Your task to perform on an android device: toggle translation in the chrome app Image 0: 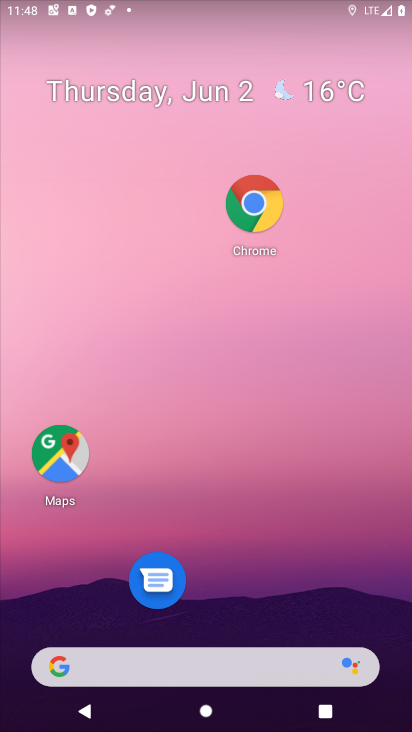
Step 0: drag from (252, 577) to (292, 235)
Your task to perform on an android device: toggle translation in the chrome app Image 1: 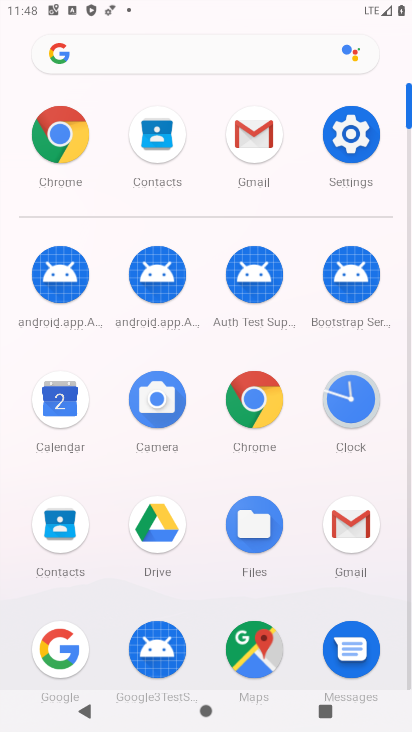
Step 1: click (54, 149)
Your task to perform on an android device: toggle translation in the chrome app Image 2: 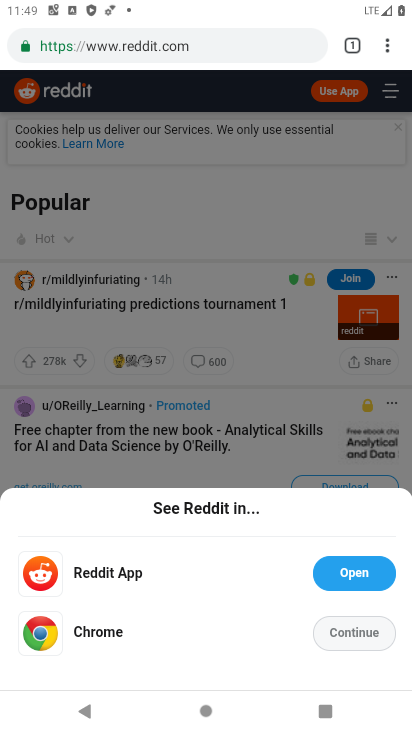
Step 2: click (321, 261)
Your task to perform on an android device: toggle translation in the chrome app Image 3: 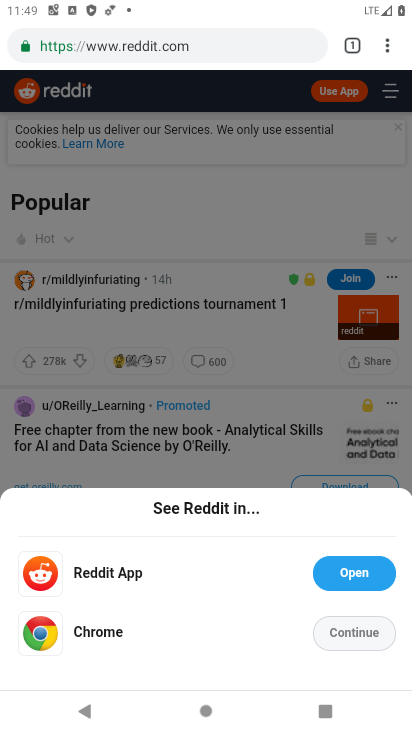
Step 3: click (387, 47)
Your task to perform on an android device: toggle translation in the chrome app Image 4: 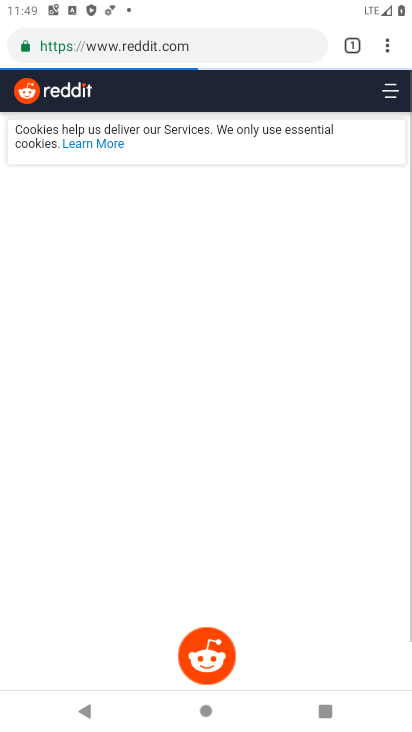
Step 4: click (390, 49)
Your task to perform on an android device: toggle translation in the chrome app Image 5: 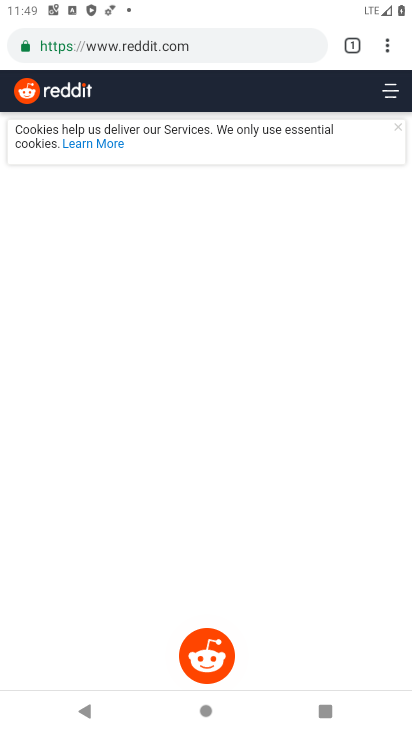
Step 5: click (390, 49)
Your task to perform on an android device: toggle translation in the chrome app Image 6: 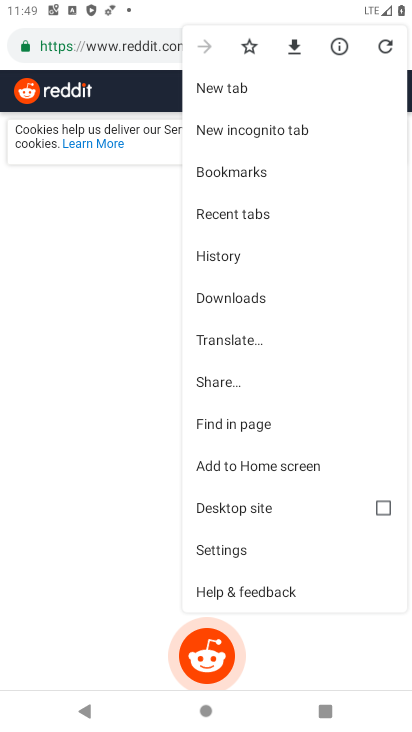
Step 6: click (277, 338)
Your task to perform on an android device: toggle translation in the chrome app Image 7: 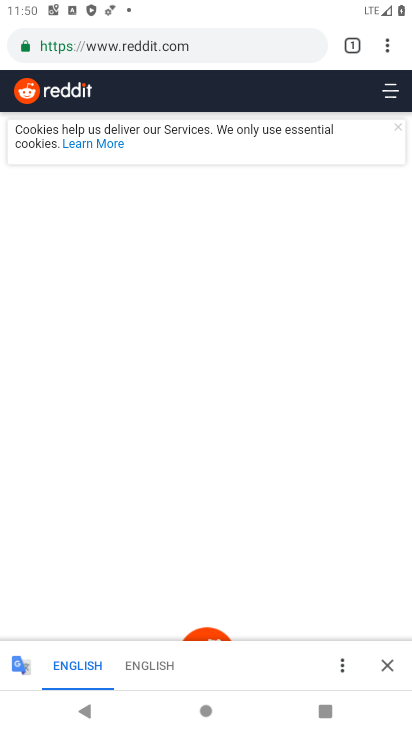
Step 7: click (340, 673)
Your task to perform on an android device: toggle translation in the chrome app Image 8: 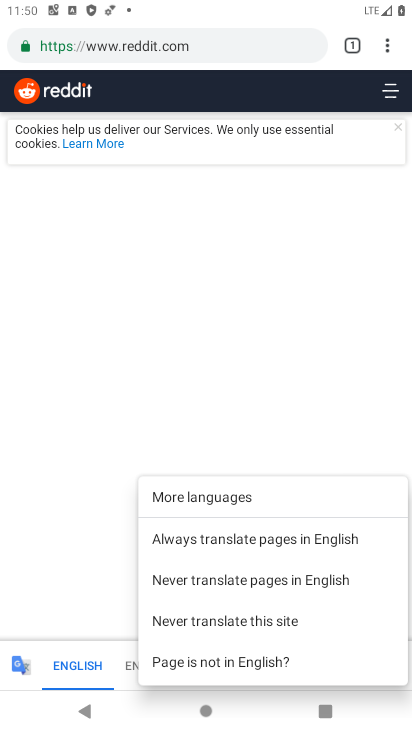
Step 8: click (302, 534)
Your task to perform on an android device: toggle translation in the chrome app Image 9: 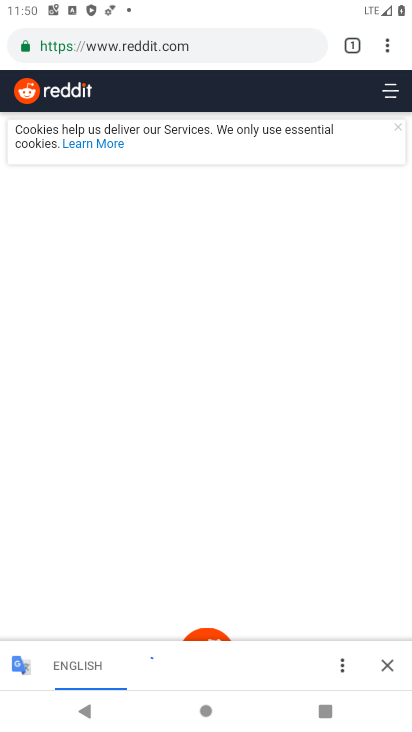
Step 9: task complete